Your task to perform on an android device: Open display settings Image 0: 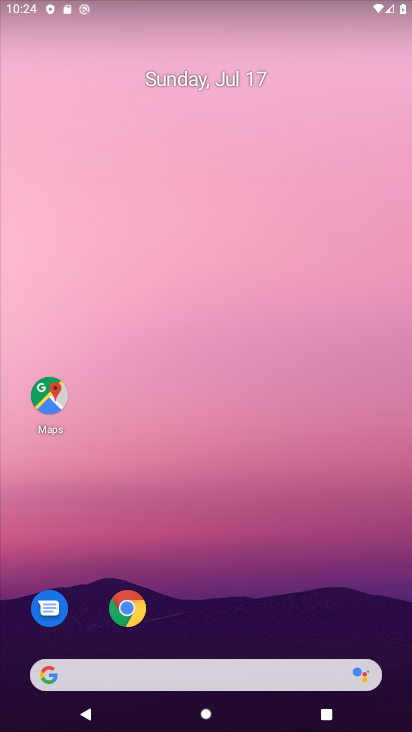
Step 0: drag from (262, 63) to (270, 25)
Your task to perform on an android device: Open display settings Image 1: 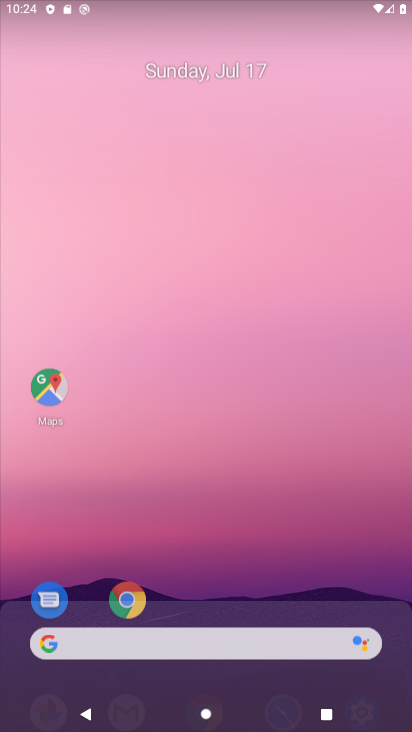
Step 1: click (321, 10)
Your task to perform on an android device: Open display settings Image 2: 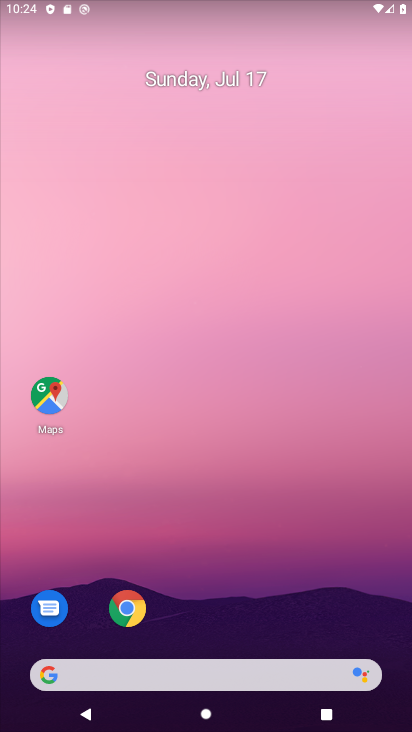
Step 2: drag from (40, 705) to (333, 12)
Your task to perform on an android device: Open display settings Image 3: 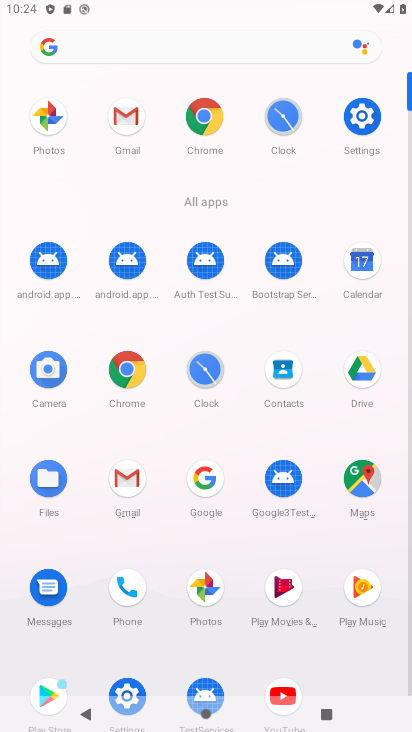
Step 3: click (123, 684)
Your task to perform on an android device: Open display settings Image 4: 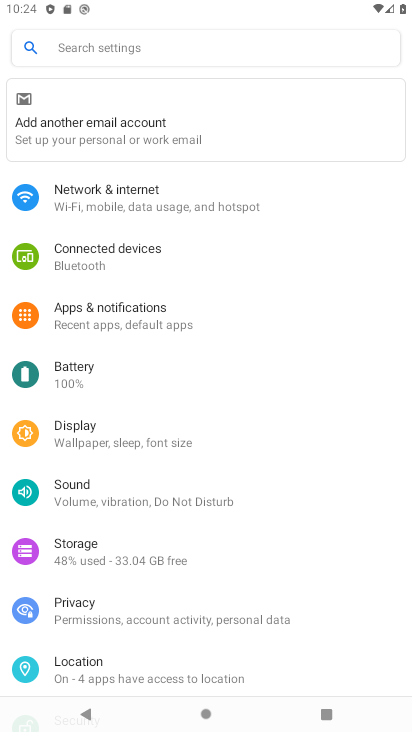
Step 4: click (102, 437)
Your task to perform on an android device: Open display settings Image 5: 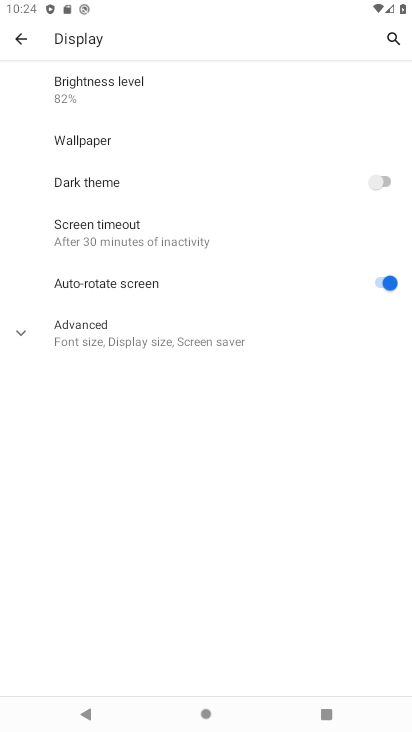
Step 5: task complete